Your task to perform on an android device: What's the news in French Guiana? Image 0: 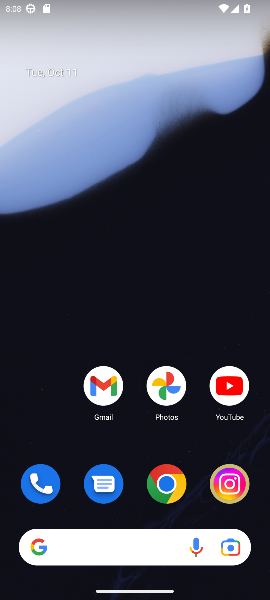
Step 0: click (167, 488)
Your task to perform on an android device: What's the news in French Guiana? Image 1: 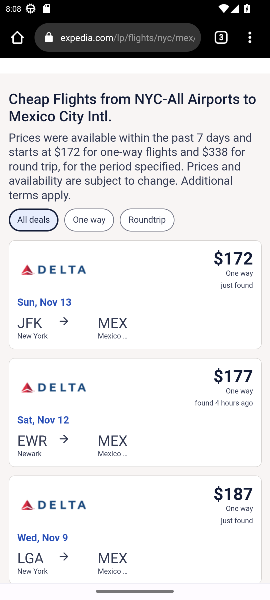
Step 1: click (146, 46)
Your task to perform on an android device: What's the news in French Guiana? Image 2: 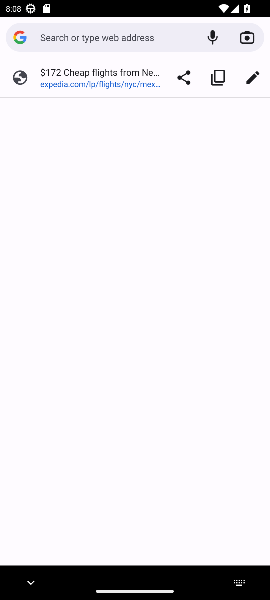
Step 2: type "news in French Guiana"
Your task to perform on an android device: What's the news in French Guiana? Image 3: 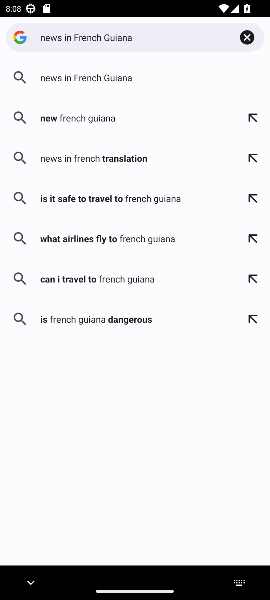
Step 3: click (103, 76)
Your task to perform on an android device: What's the news in French Guiana? Image 4: 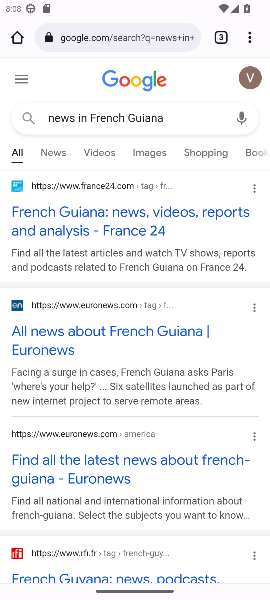
Step 4: click (87, 217)
Your task to perform on an android device: What's the news in French Guiana? Image 5: 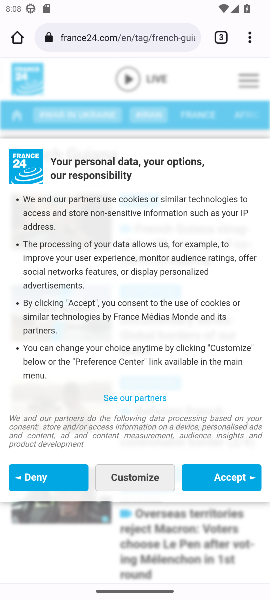
Step 5: click (224, 477)
Your task to perform on an android device: What's the news in French Guiana? Image 6: 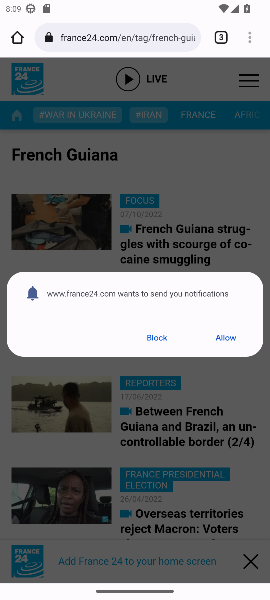
Step 6: click (229, 337)
Your task to perform on an android device: What's the news in French Guiana? Image 7: 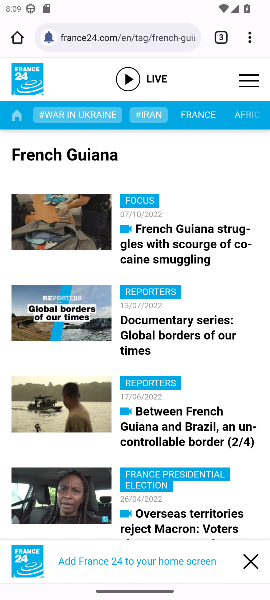
Step 7: task complete